Your task to perform on an android device: search for starred emails in the gmail app Image 0: 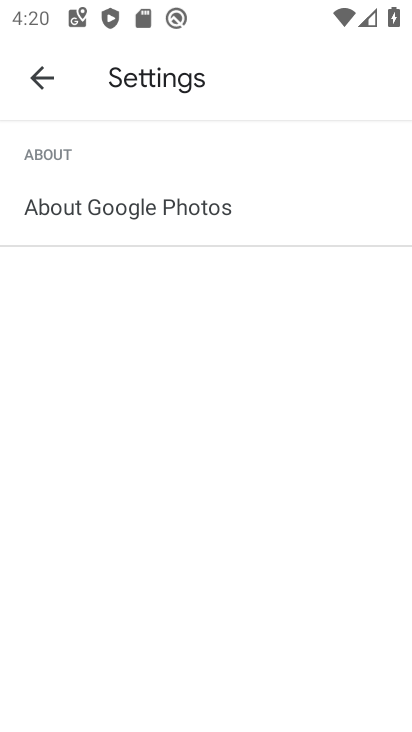
Step 0: press back button
Your task to perform on an android device: search for starred emails in the gmail app Image 1: 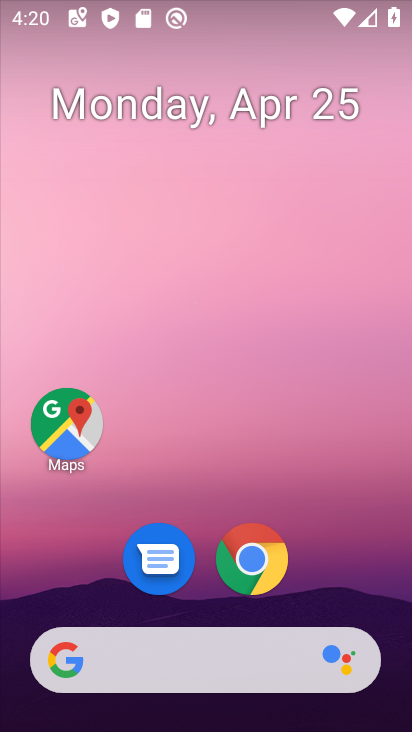
Step 1: drag from (201, 478) to (201, 57)
Your task to perform on an android device: search for starred emails in the gmail app Image 2: 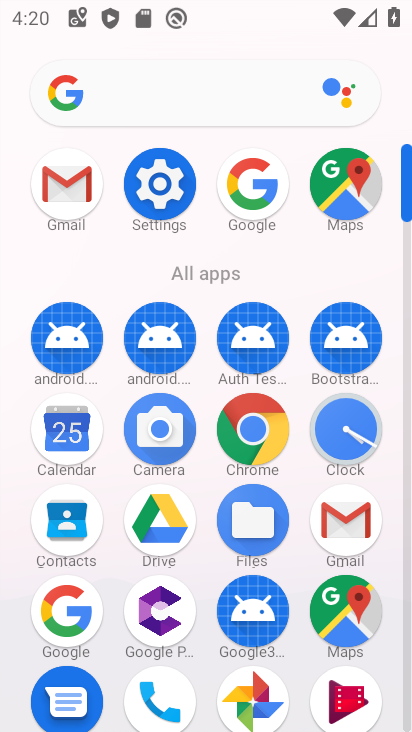
Step 2: click (67, 180)
Your task to perform on an android device: search for starred emails in the gmail app Image 3: 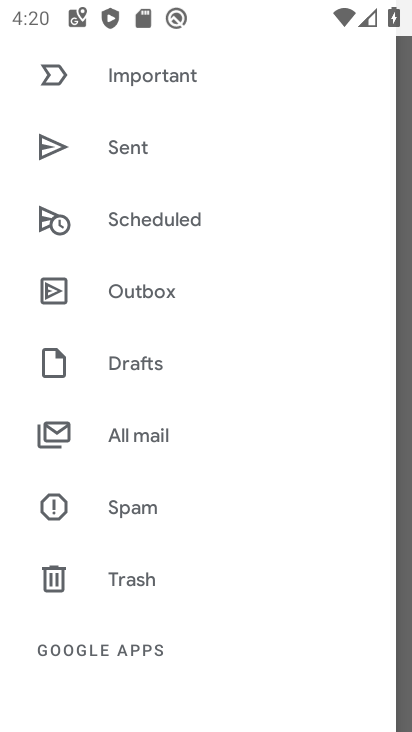
Step 3: drag from (216, 287) to (216, 343)
Your task to perform on an android device: search for starred emails in the gmail app Image 4: 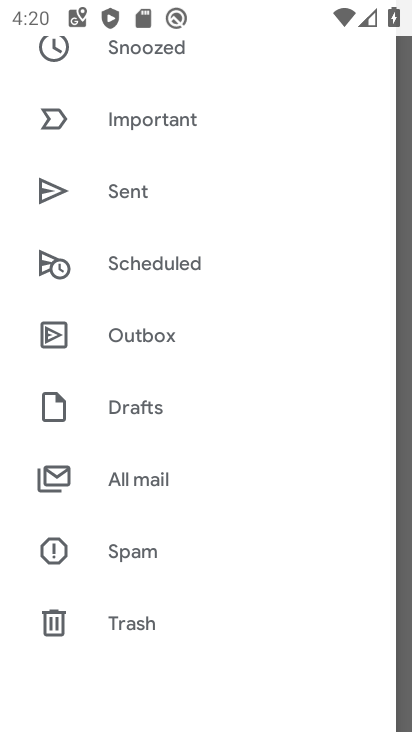
Step 4: drag from (197, 203) to (181, 295)
Your task to perform on an android device: search for starred emails in the gmail app Image 5: 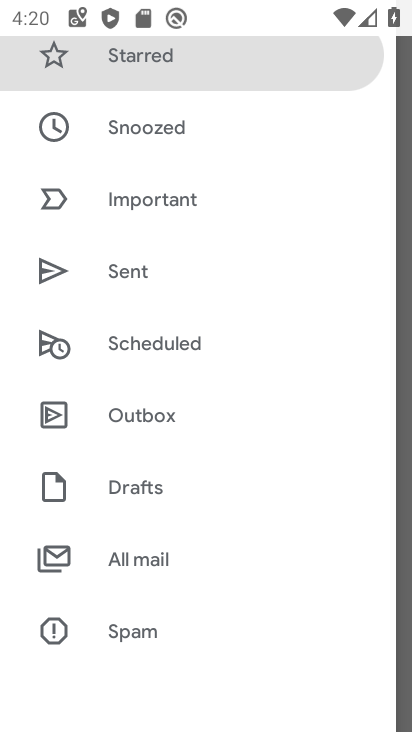
Step 5: drag from (193, 168) to (208, 297)
Your task to perform on an android device: search for starred emails in the gmail app Image 6: 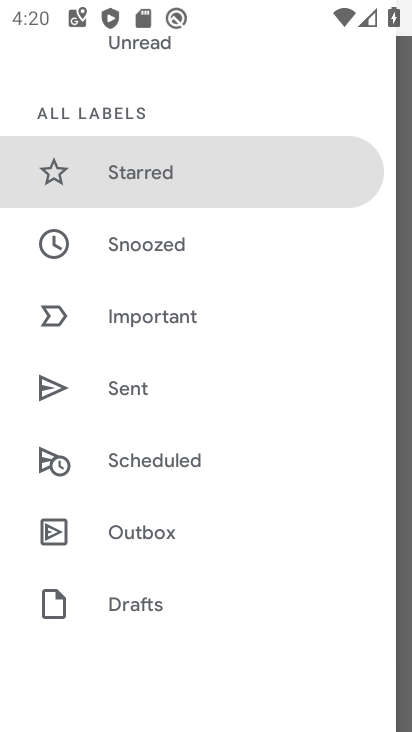
Step 6: click (174, 170)
Your task to perform on an android device: search for starred emails in the gmail app Image 7: 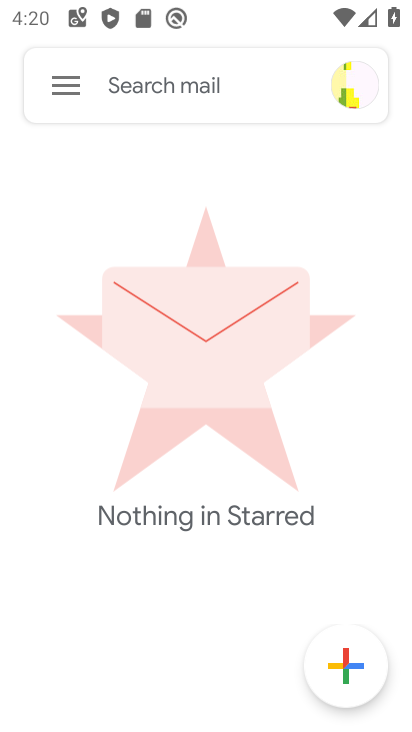
Step 7: click (72, 84)
Your task to perform on an android device: search for starred emails in the gmail app Image 8: 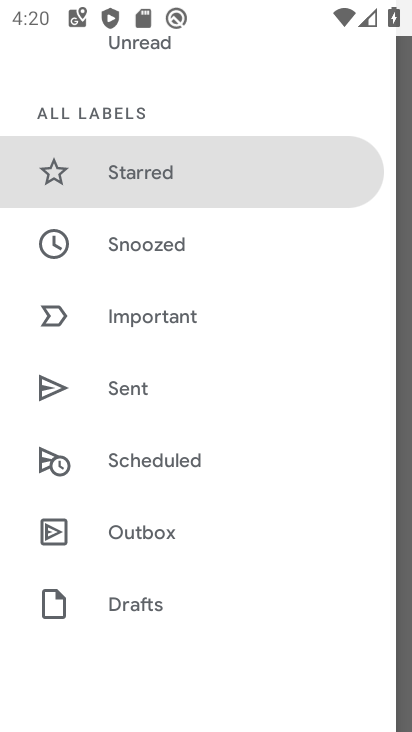
Step 8: drag from (126, 357) to (166, 256)
Your task to perform on an android device: search for starred emails in the gmail app Image 9: 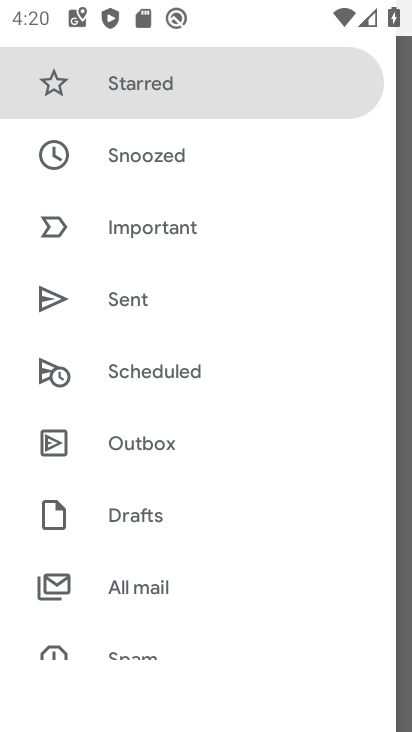
Step 9: drag from (121, 422) to (159, 270)
Your task to perform on an android device: search for starred emails in the gmail app Image 10: 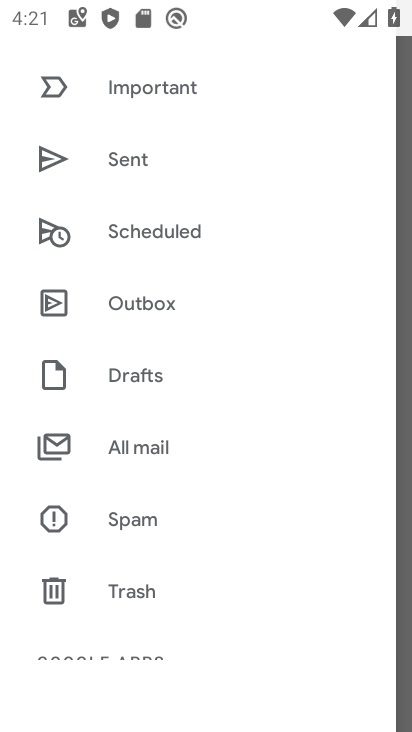
Step 10: click (128, 465)
Your task to perform on an android device: search for starred emails in the gmail app Image 11: 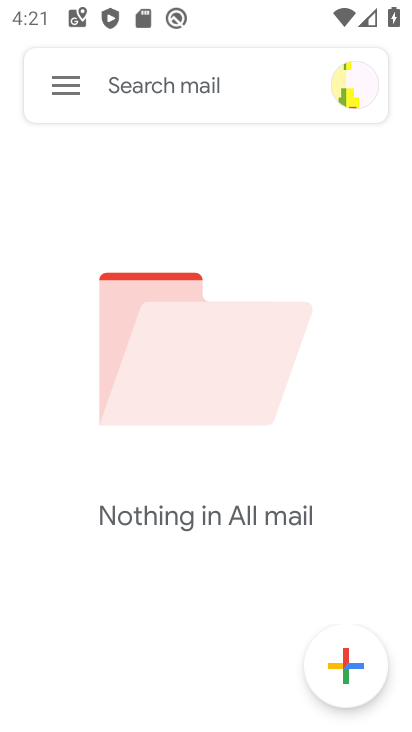
Step 11: task complete